Your task to perform on an android device: open app "WhatsApp Messenger" (install if not already installed) Image 0: 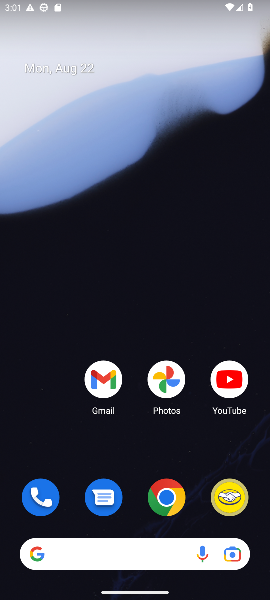
Step 0: drag from (149, 447) to (153, 50)
Your task to perform on an android device: open app "WhatsApp Messenger" (install if not already installed) Image 1: 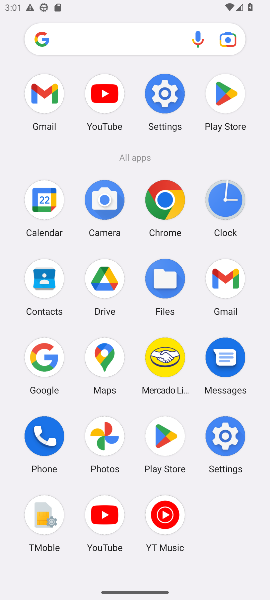
Step 1: click (217, 90)
Your task to perform on an android device: open app "WhatsApp Messenger" (install if not already installed) Image 2: 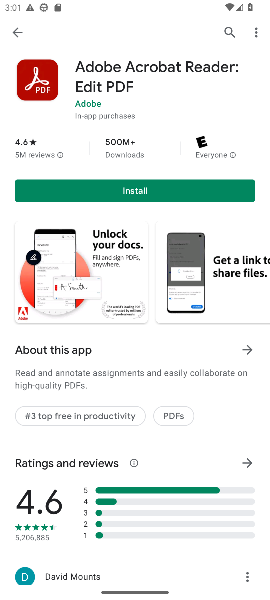
Step 2: click (220, 35)
Your task to perform on an android device: open app "WhatsApp Messenger" (install if not already installed) Image 3: 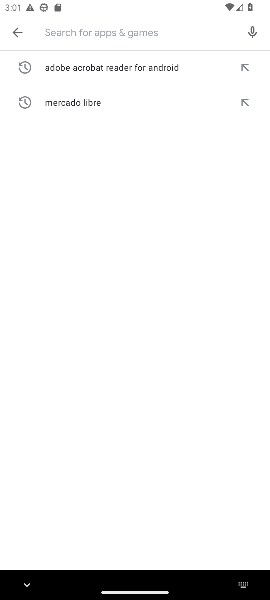
Step 3: type "WhatsApp Messenger"
Your task to perform on an android device: open app "WhatsApp Messenger" (install if not already installed) Image 4: 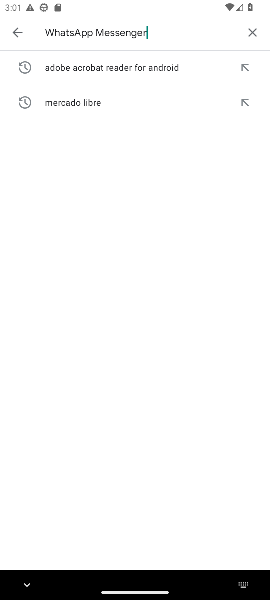
Step 4: type ""
Your task to perform on an android device: open app "WhatsApp Messenger" (install if not already installed) Image 5: 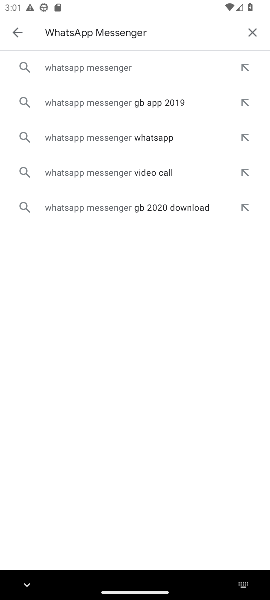
Step 5: click (139, 65)
Your task to perform on an android device: open app "WhatsApp Messenger" (install if not already installed) Image 6: 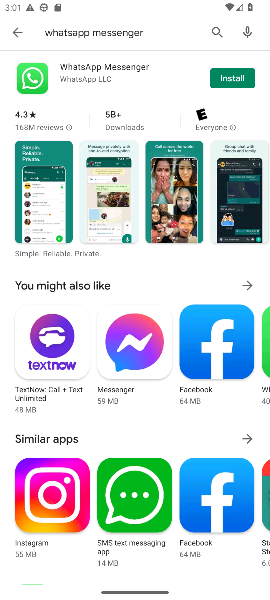
Step 6: click (216, 79)
Your task to perform on an android device: open app "WhatsApp Messenger" (install if not already installed) Image 7: 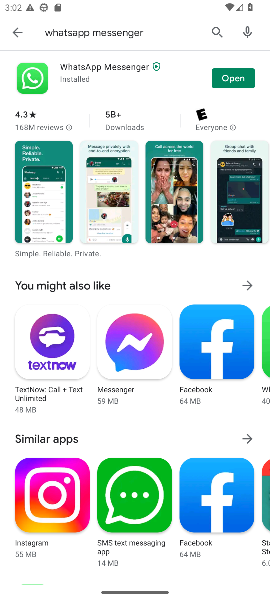
Step 7: click (229, 78)
Your task to perform on an android device: open app "WhatsApp Messenger" (install if not already installed) Image 8: 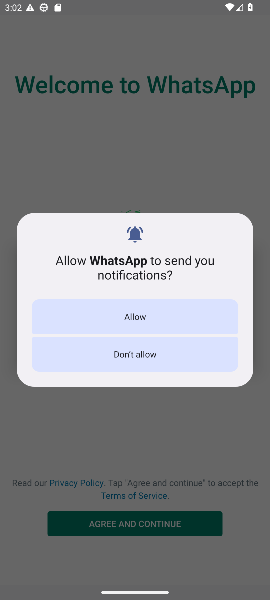
Step 8: click (49, 308)
Your task to perform on an android device: open app "WhatsApp Messenger" (install if not already installed) Image 9: 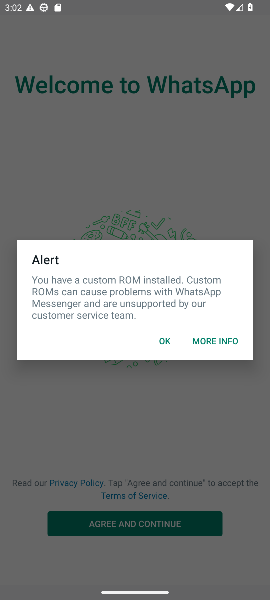
Step 9: click (160, 342)
Your task to perform on an android device: open app "WhatsApp Messenger" (install if not already installed) Image 10: 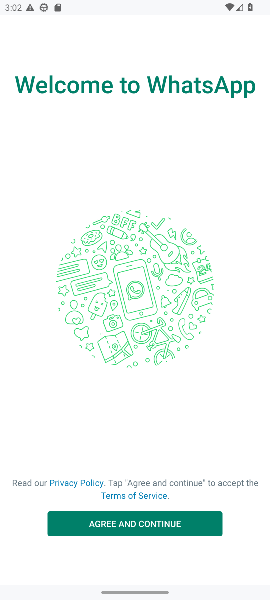
Step 10: task complete